Your task to perform on an android device: Show me productivity apps on the Play Store Image 0: 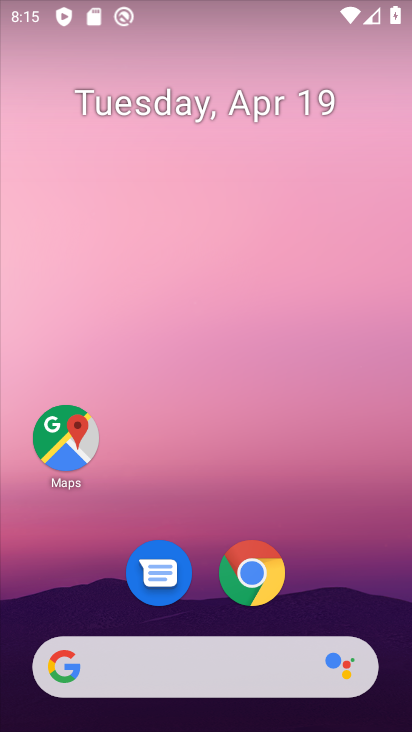
Step 0: drag from (339, 476) to (284, 67)
Your task to perform on an android device: Show me productivity apps on the Play Store Image 1: 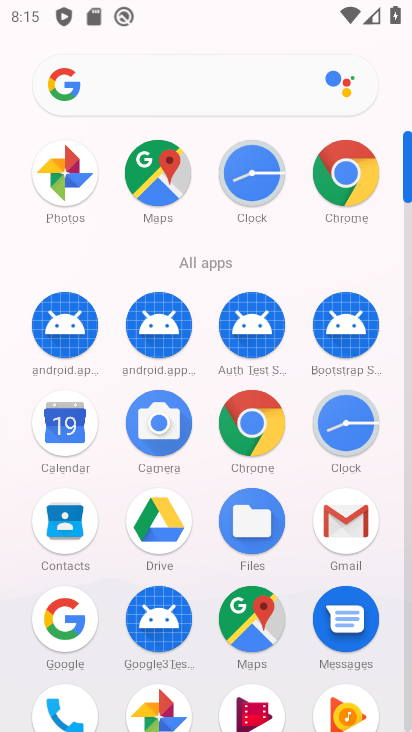
Step 1: drag from (183, 575) to (181, 206)
Your task to perform on an android device: Show me productivity apps on the Play Store Image 2: 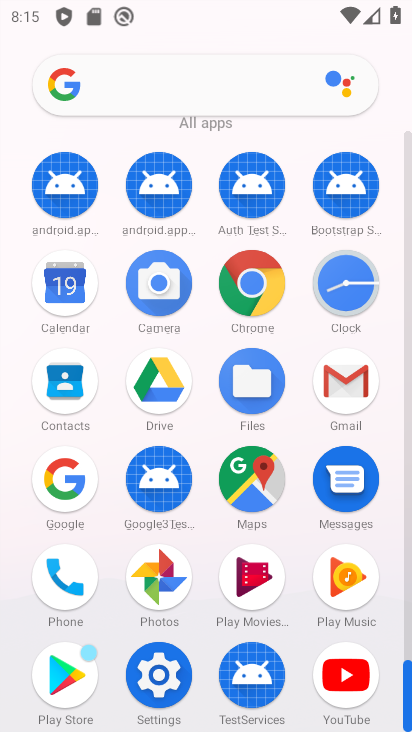
Step 2: click (60, 667)
Your task to perform on an android device: Show me productivity apps on the Play Store Image 3: 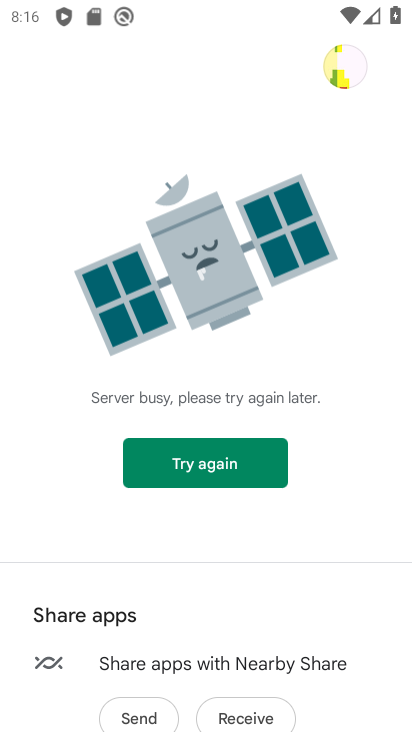
Step 3: click (181, 476)
Your task to perform on an android device: Show me productivity apps on the Play Store Image 4: 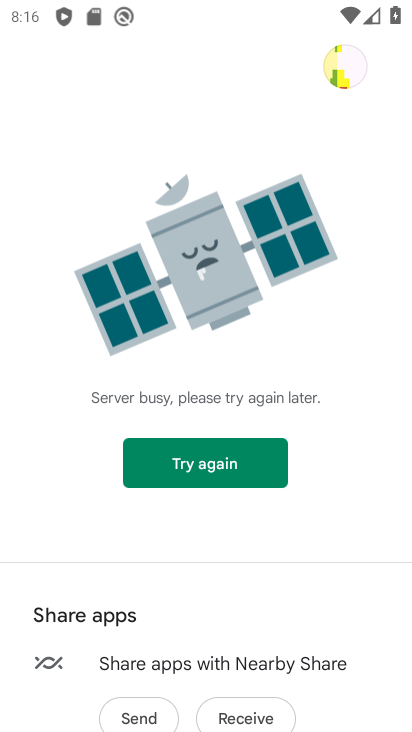
Step 4: click (181, 460)
Your task to perform on an android device: Show me productivity apps on the Play Store Image 5: 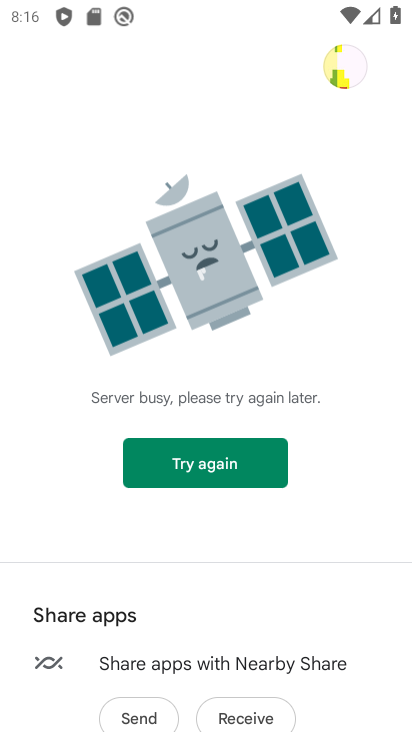
Step 5: click (224, 455)
Your task to perform on an android device: Show me productivity apps on the Play Store Image 6: 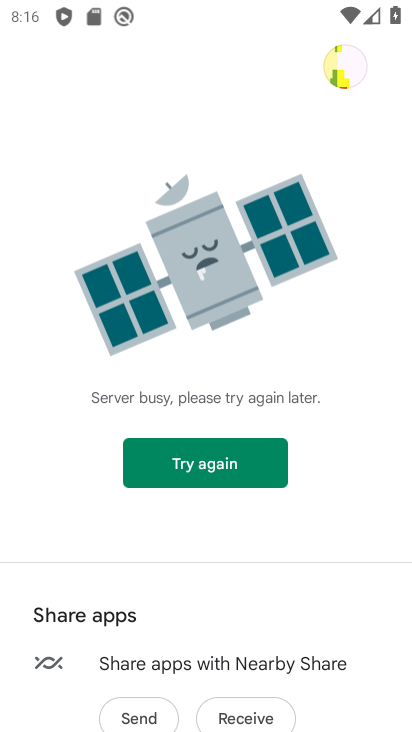
Step 6: task complete